Your task to perform on an android device: Show me recent news Image 0: 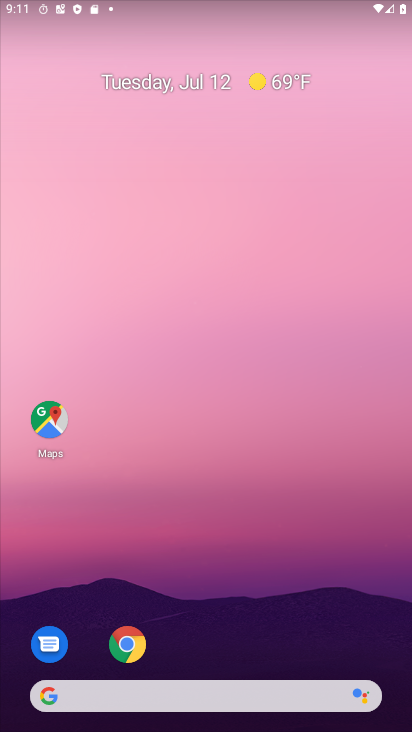
Step 0: drag from (9, 331) to (403, 331)
Your task to perform on an android device: Show me recent news Image 1: 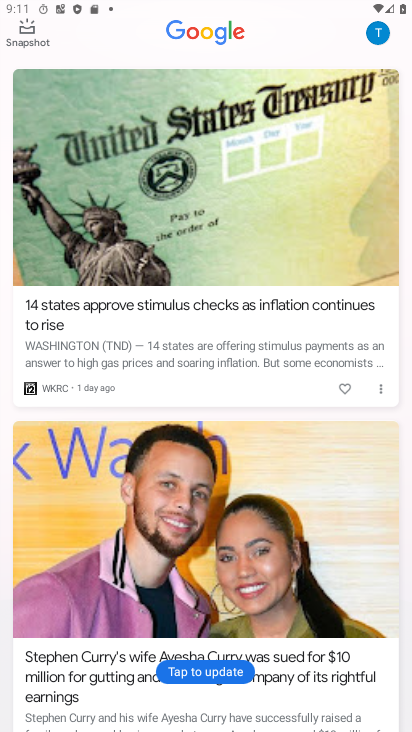
Step 1: task complete